Your task to perform on an android device: Find coffee shops on Maps Image 0: 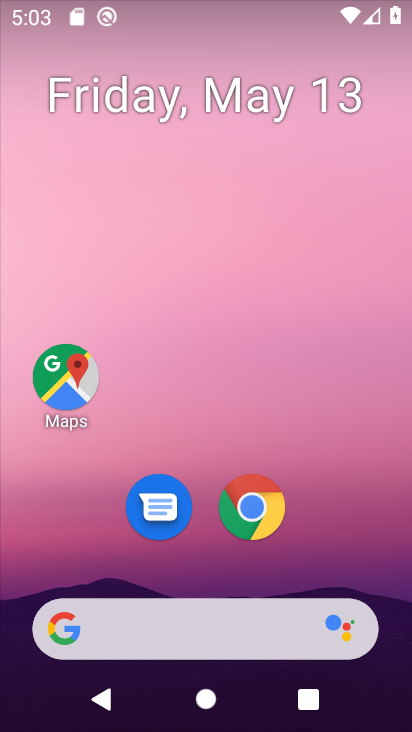
Step 0: click (76, 392)
Your task to perform on an android device: Find coffee shops on Maps Image 1: 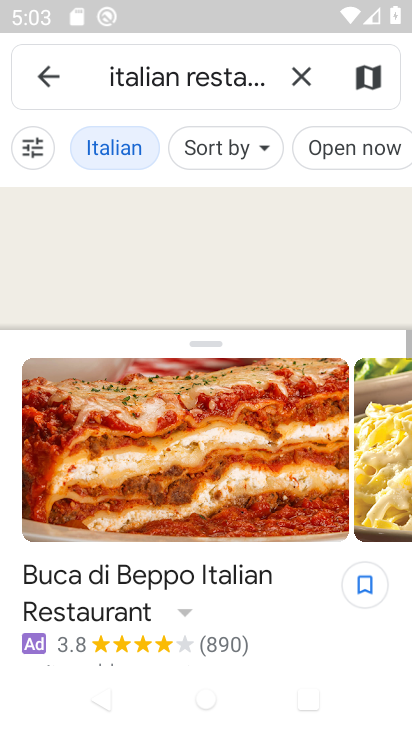
Step 1: click (302, 74)
Your task to perform on an android device: Find coffee shops on Maps Image 2: 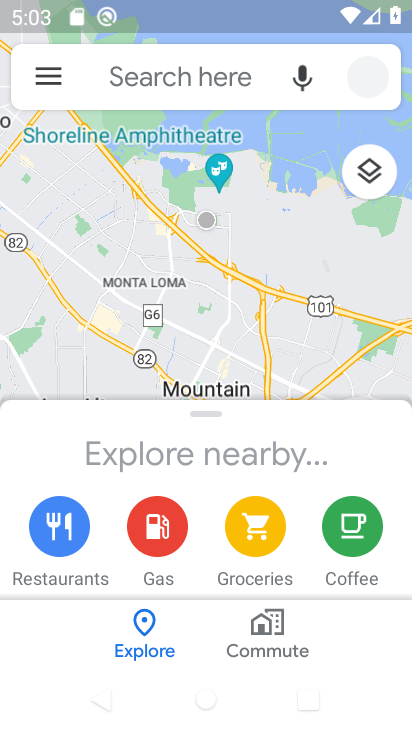
Step 2: click (198, 76)
Your task to perform on an android device: Find coffee shops on Maps Image 3: 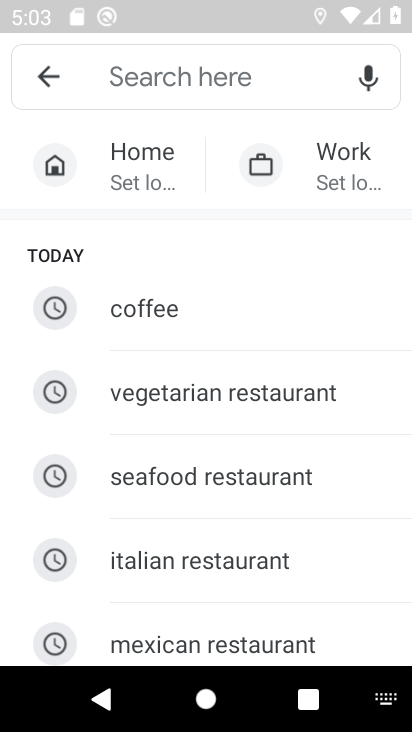
Step 3: click (168, 308)
Your task to perform on an android device: Find coffee shops on Maps Image 4: 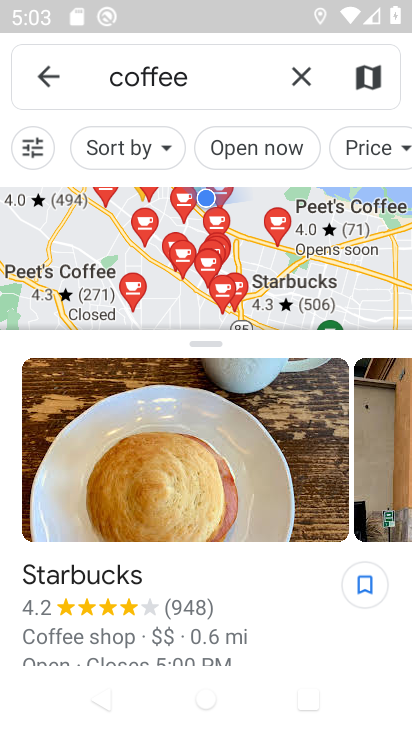
Step 4: task complete